Your task to perform on an android device: change notification settings in the gmail app Image 0: 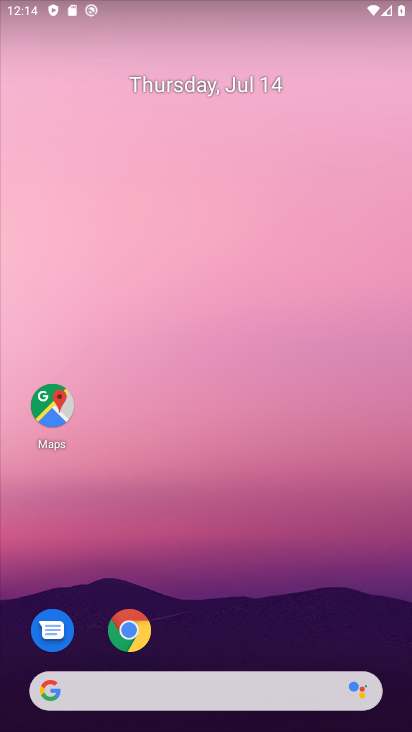
Step 0: drag from (243, 648) to (282, 203)
Your task to perform on an android device: change notification settings in the gmail app Image 1: 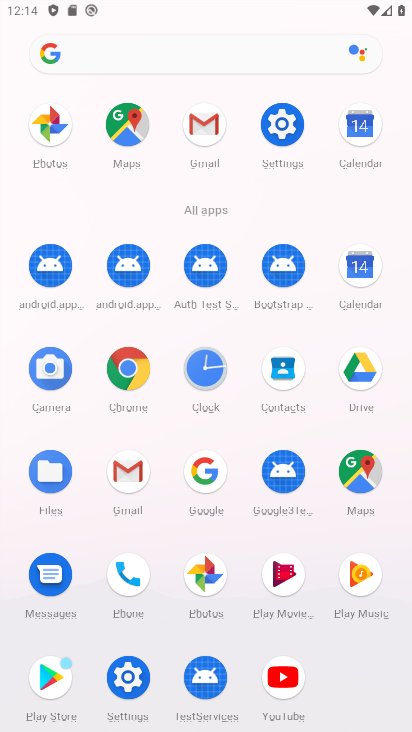
Step 1: click (122, 476)
Your task to perform on an android device: change notification settings in the gmail app Image 2: 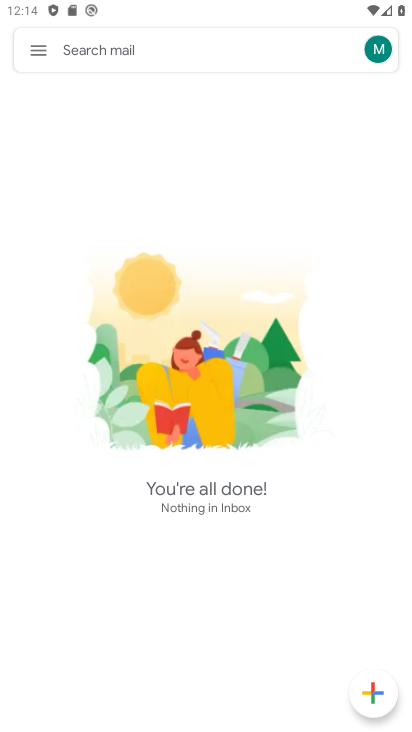
Step 2: click (34, 49)
Your task to perform on an android device: change notification settings in the gmail app Image 3: 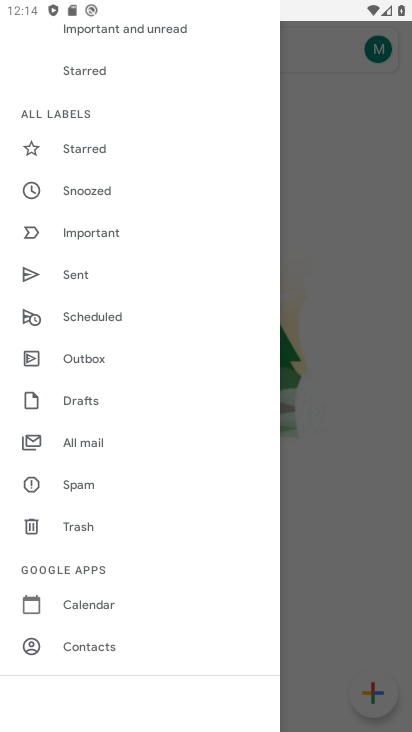
Step 3: drag from (85, 654) to (103, 231)
Your task to perform on an android device: change notification settings in the gmail app Image 4: 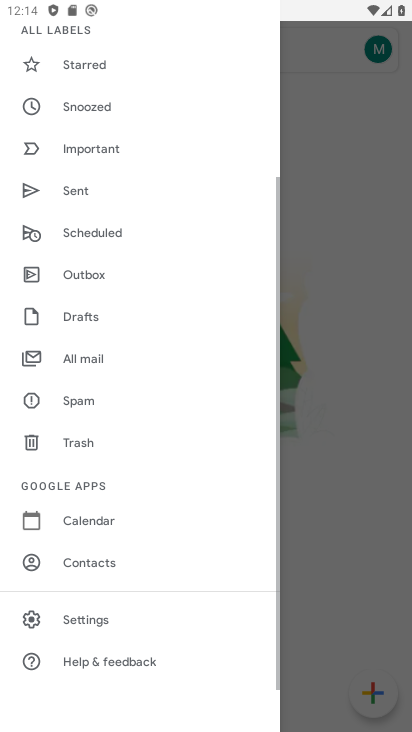
Step 4: click (84, 615)
Your task to perform on an android device: change notification settings in the gmail app Image 5: 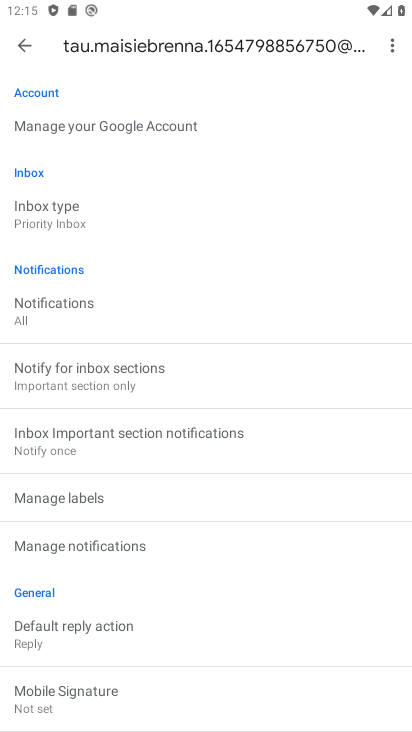
Step 5: click (58, 297)
Your task to perform on an android device: change notification settings in the gmail app Image 6: 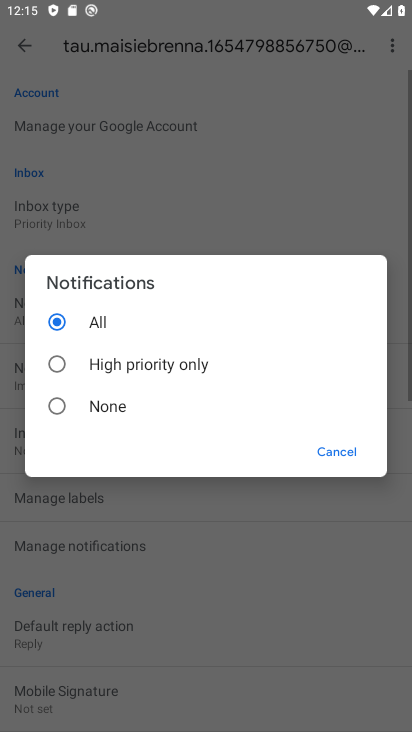
Step 6: click (90, 366)
Your task to perform on an android device: change notification settings in the gmail app Image 7: 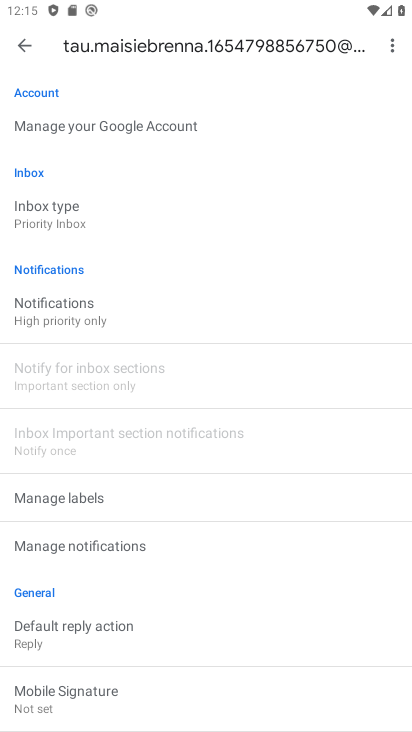
Step 7: task complete